Your task to perform on an android device: Open calendar and show me the third week of next month Image 0: 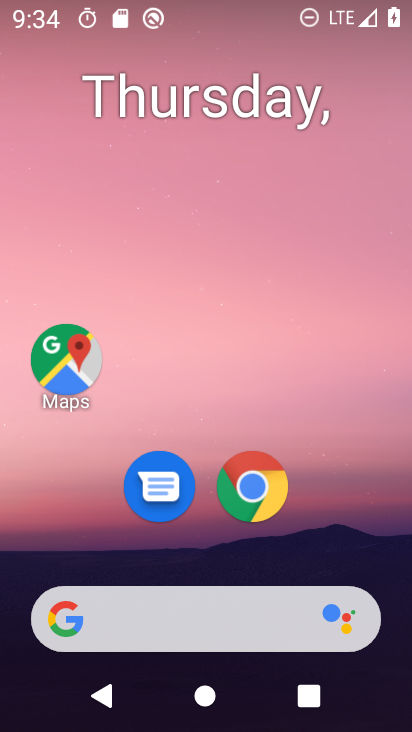
Step 0: drag from (70, 496) to (214, 22)
Your task to perform on an android device: Open calendar and show me the third week of next month Image 1: 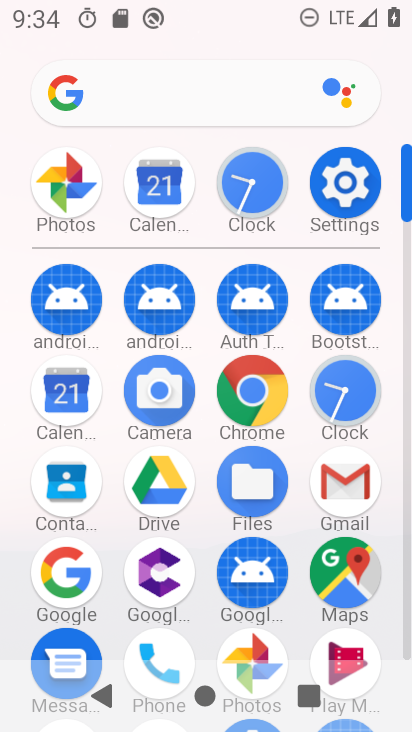
Step 1: click (70, 399)
Your task to perform on an android device: Open calendar and show me the third week of next month Image 2: 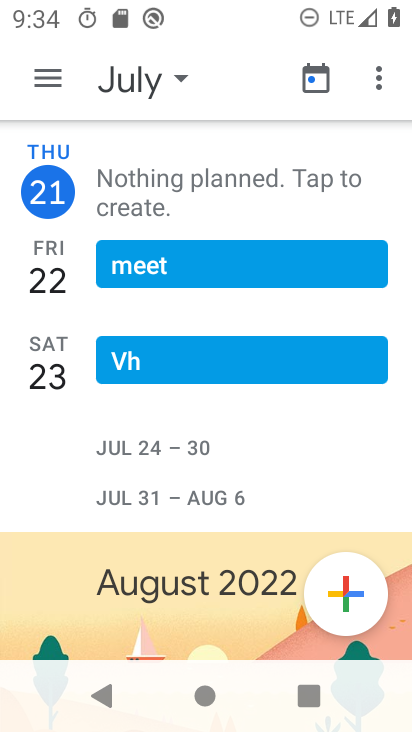
Step 2: click (157, 83)
Your task to perform on an android device: Open calendar and show me the third week of next month Image 3: 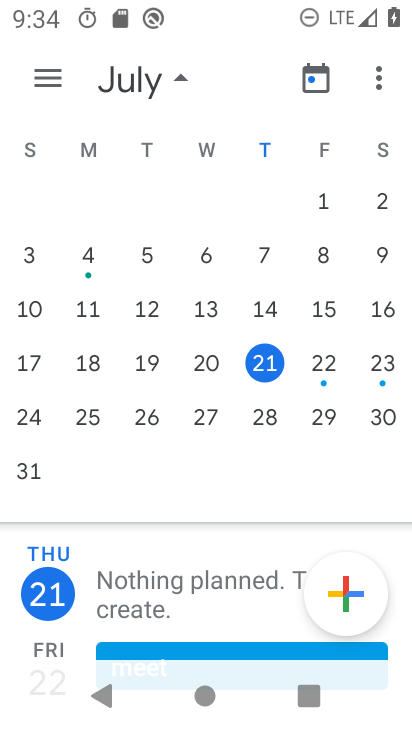
Step 3: drag from (388, 363) to (3, 359)
Your task to perform on an android device: Open calendar and show me the third week of next month Image 4: 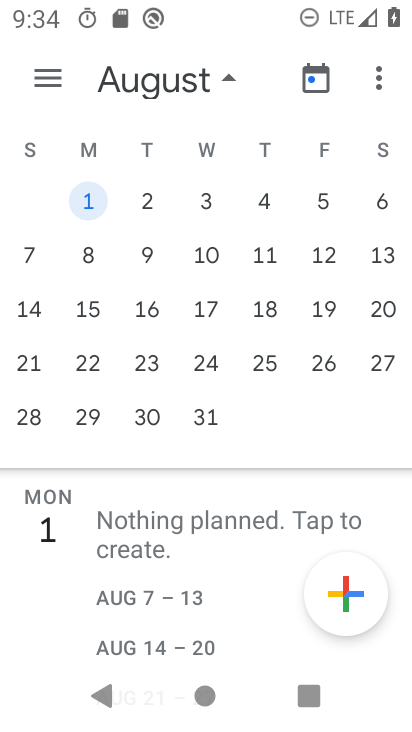
Step 4: click (376, 313)
Your task to perform on an android device: Open calendar and show me the third week of next month Image 5: 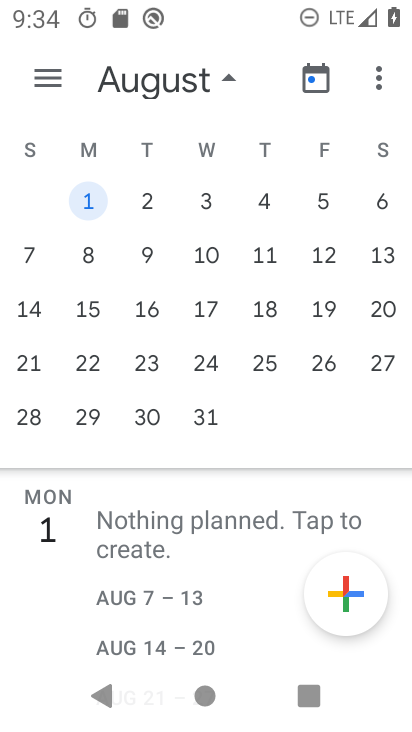
Step 5: click (82, 296)
Your task to perform on an android device: Open calendar and show me the third week of next month Image 6: 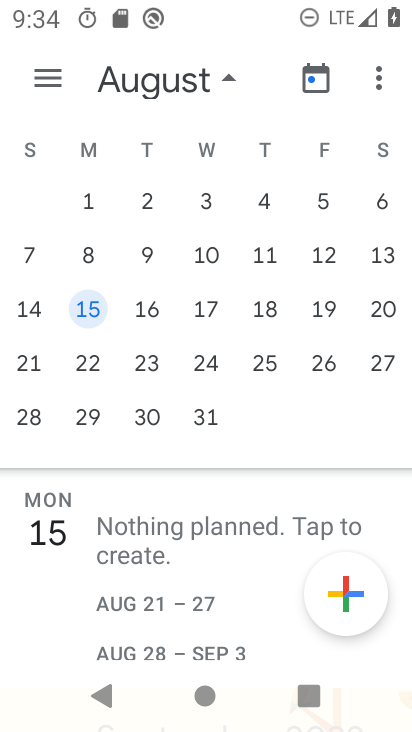
Step 6: task complete